Your task to perform on an android device: Open location settings Image 0: 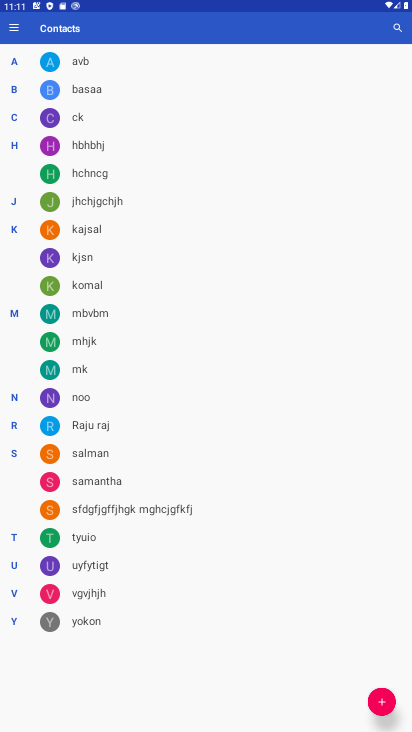
Step 0: press home button
Your task to perform on an android device: Open location settings Image 1: 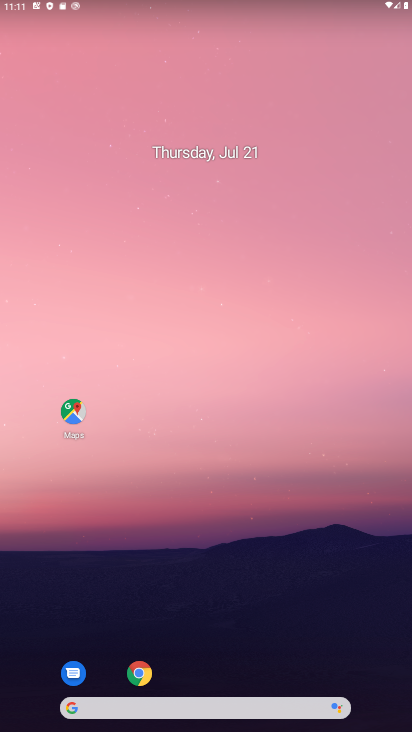
Step 1: drag from (235, 689) to (221, 253)
Your task to perform on an android device: Open location settings Image 2: 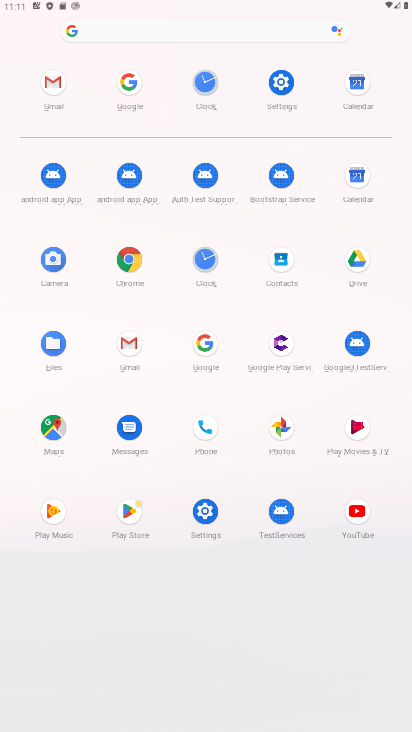
Step 2: click (276, 85)
Your task to perform on an android device: Open location settings Image 3: 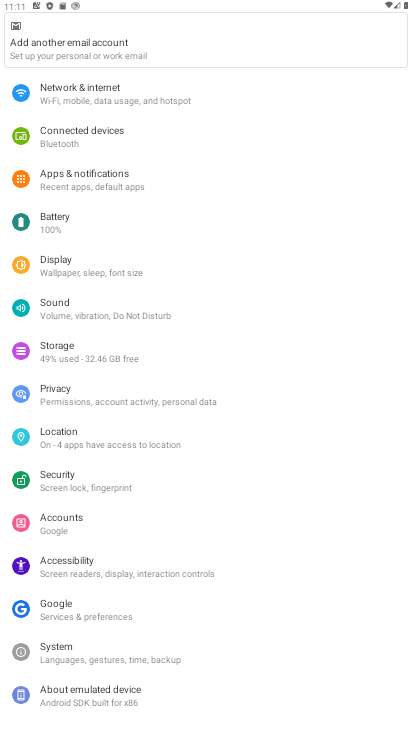
Step 3: click (101, 445)
Your task to perform on an android device: Open location settings Image 4: 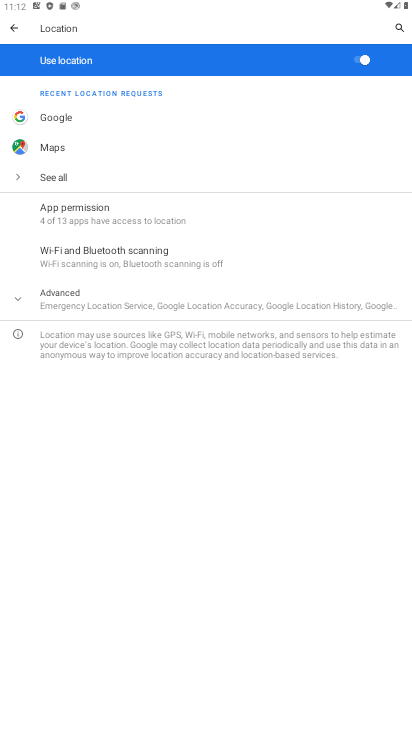
Step 4: task complete